Your task to perform on an android device: What is the recent news? Image 0: 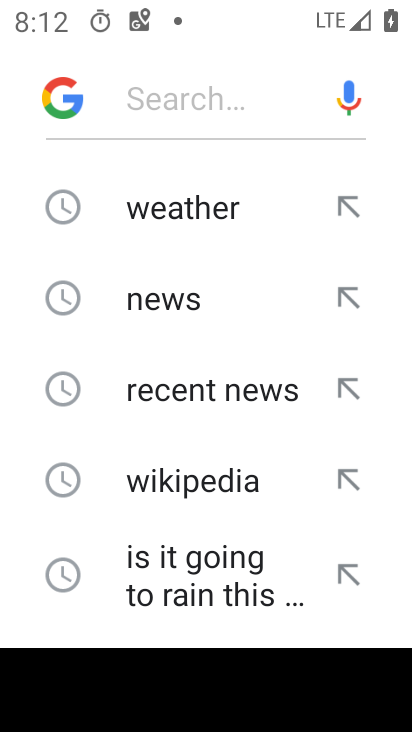
Step 0: press home button
Your task to perform on an android device: What is the recent news? Image 1: 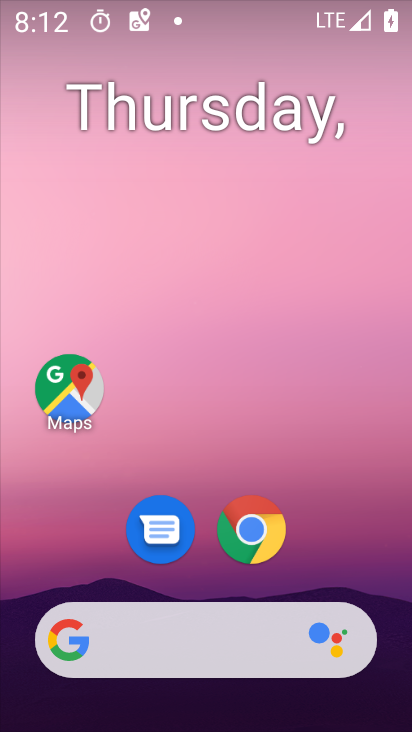
Step 1: task complete